Your task to perform on an android device: toggle wifi Image 0: 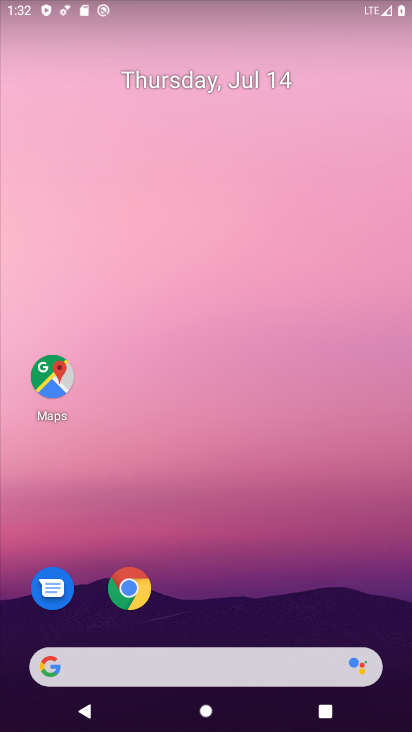
Step 0: drag from (132, 700) to (144, 151)
Your task to perform on an android device: toggle wifi Image 1: 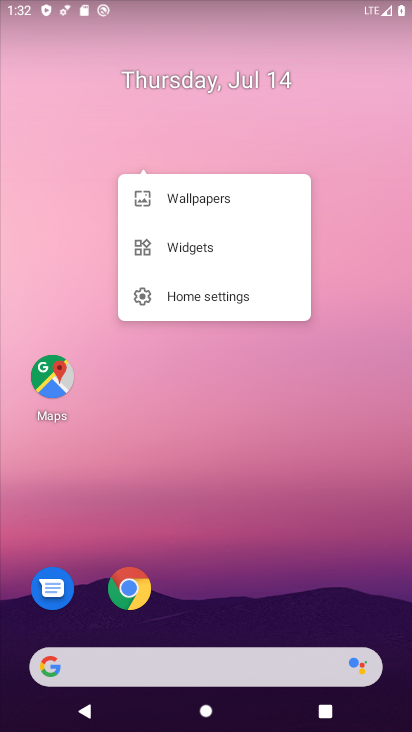
Step 1: click (236, 706)
Your task to perform on an android device: toggle wifi Image 2: 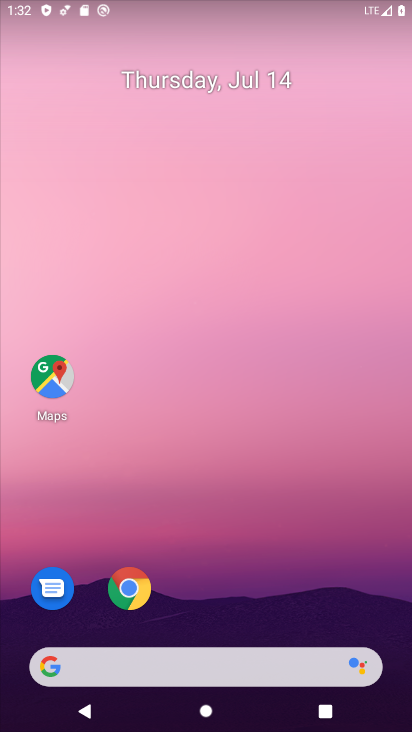
Step 2: drag from (262, 720) to (252, 145)
Your task to perform on an android device: toggle wifi Image 3: 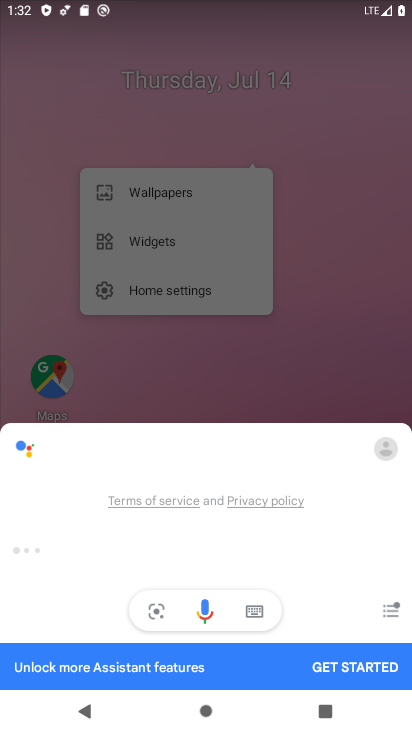
Step 3: press home button
Your task to perform on an android device: toggle wifi Image 4: 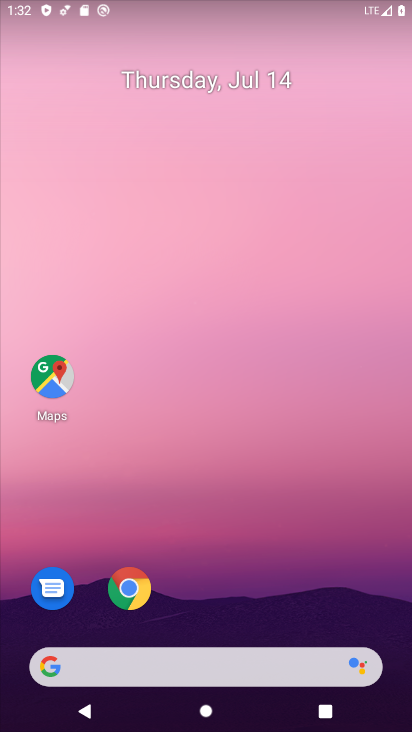
Step 4: drag from (140, 696) to (262, 11)
Your task to perform on an android device: toggle wifi Image 5: 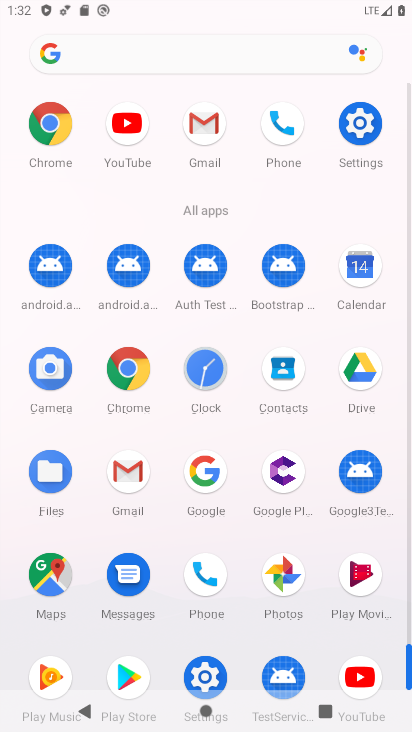
Step 5: click (342, 109)
Your task to perform on an android device: toggle wifi Image 6: 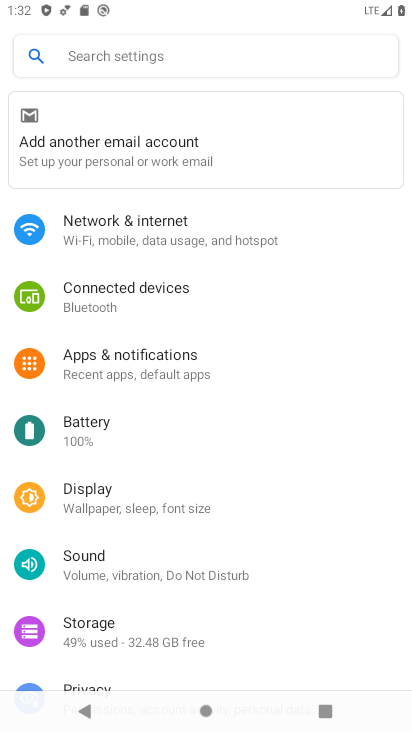
Step 6: click (171, 239)
Your task to perform on an android device: toggle wifi Image 7: 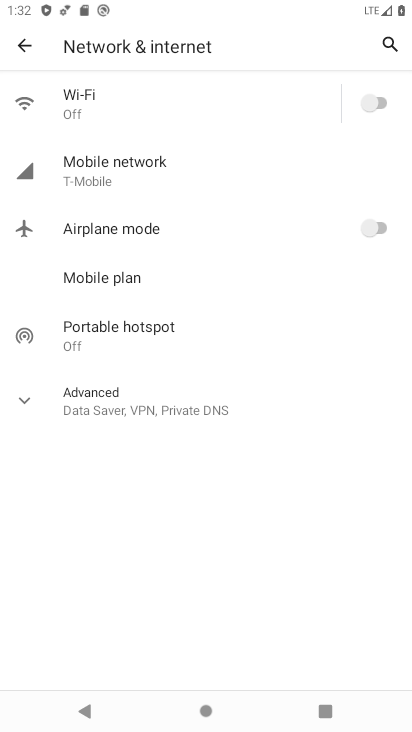
Step 7: click (377, 97)
Your task to perform on an android device: toggle wifi Image 8: 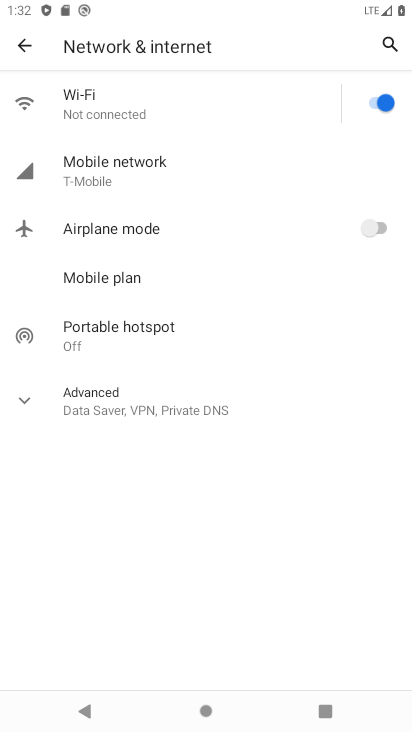
Step 8: task complete